Your task to perform on an android device: star an email in the gmail app Image 0: 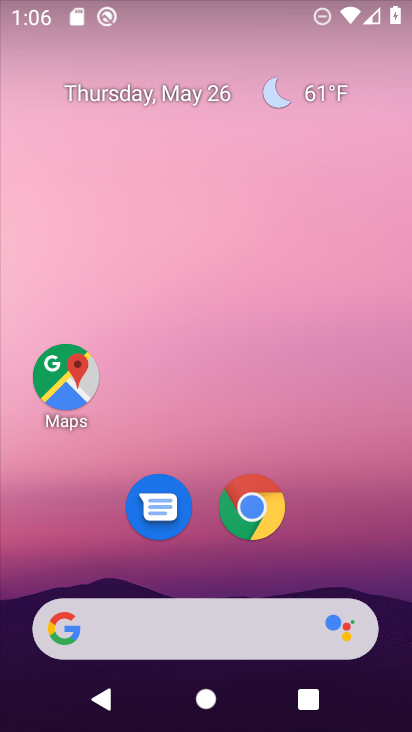
Step 0: drag from (344, 569) to (343, 46)
Your task to perform on an android device: star an email in the gmail app Image 1: 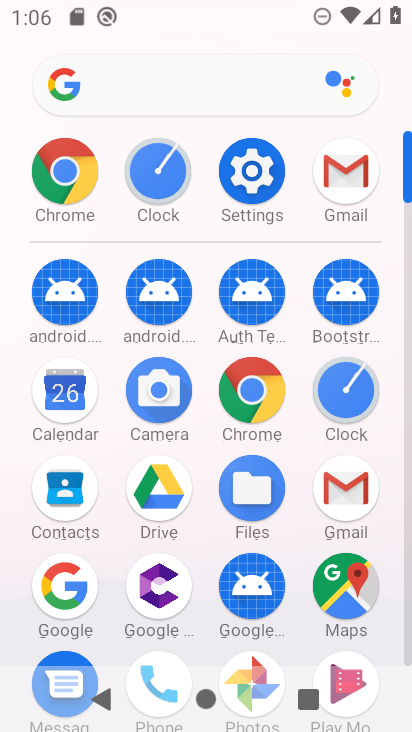
Step 1: click (236, 198)
Your task to perform on an android device: star an email in the gmail app Image 2: 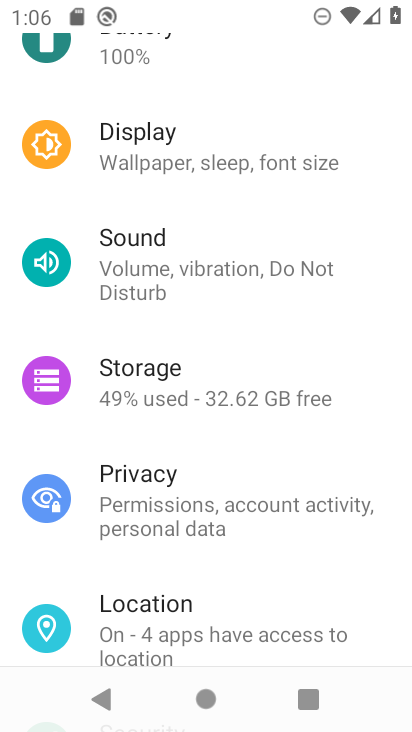
Step 2: press home button
Your task to perform on an android device: star an email in the gmail app Image 3: 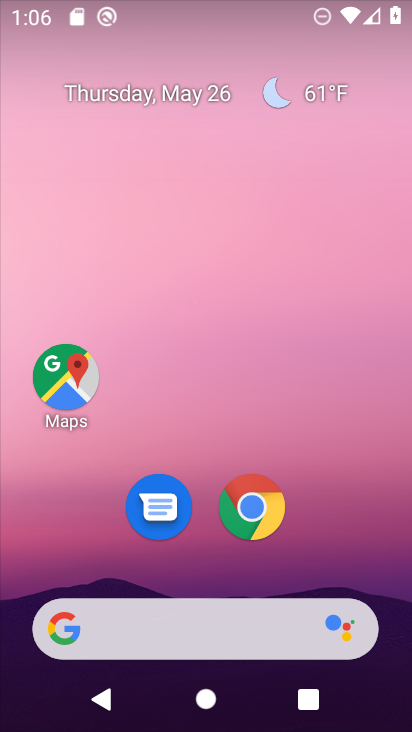
Step 3: drag from (343, 500) to (318, 207)
Your task to perform on an android device: star an email in the gmail app Image 4: 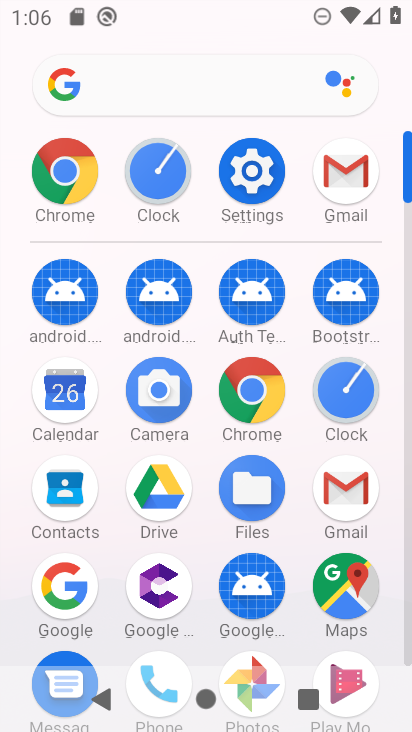
Step 4: click (340, 211)
Your task to perform on an android device: star an email in the gmail app Image 5: 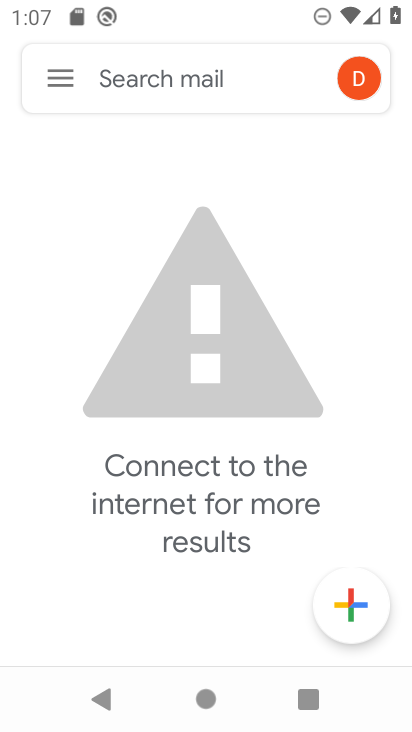
Step 5: click (63, 98)
Your task to perform on an android device: star an email in the gmail app Image 6: 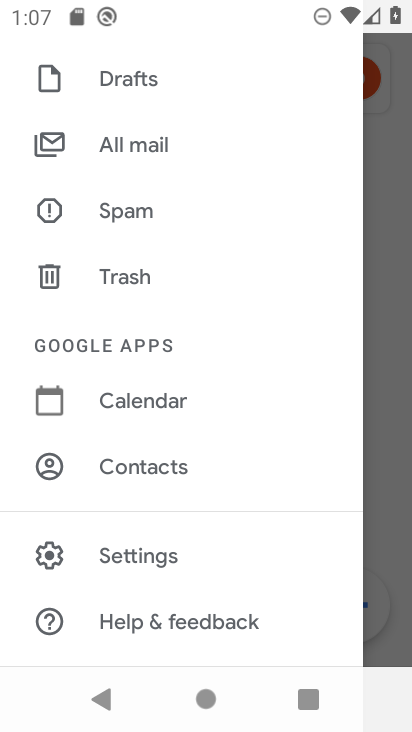
Step 6: drag from (139, 265) to (114, 357)
Your task to perform on an android device: star an email in the gmail app Image 7: 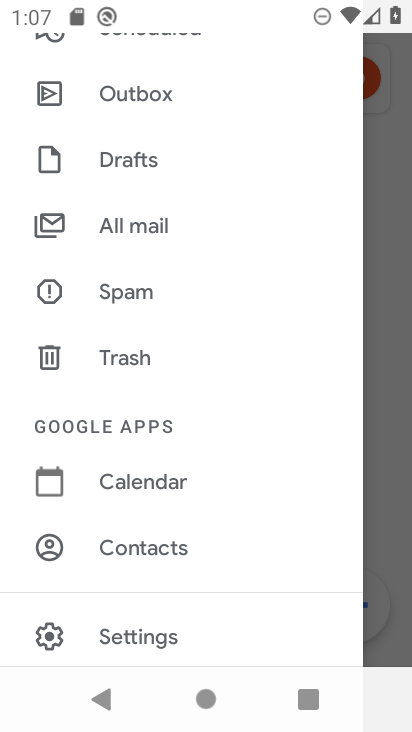
Step 7: drag from (160, 88) to (59, 292)
Your task to perform on an android device: star an email in the gmail app Image 8: 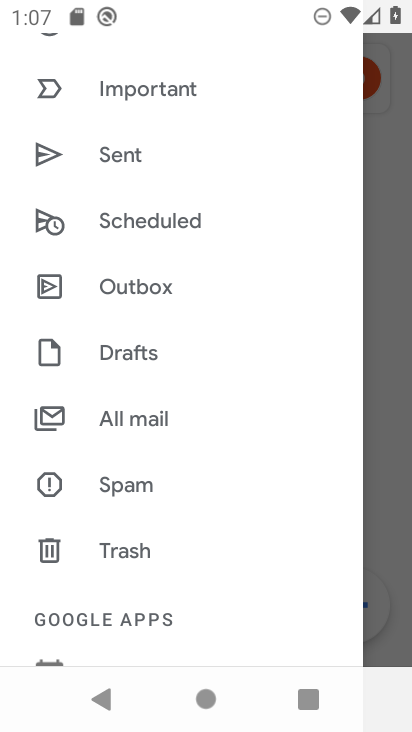
Step 8: drag from (145, 198) to (126, 459)
Your task to perform on an android device: star an email in the gmail app Image 9: 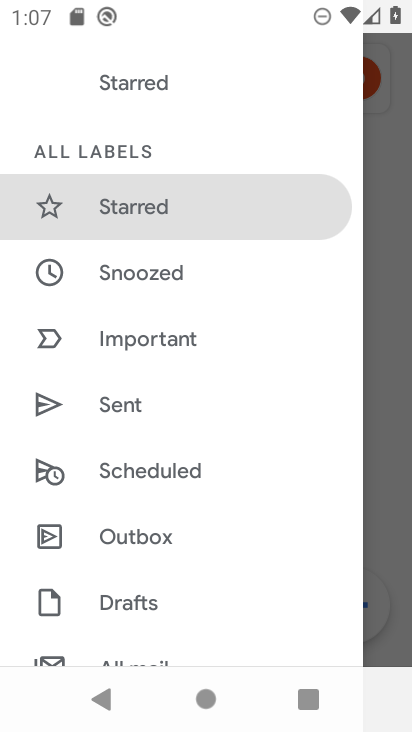
Step 9: click (127, 228)
Your task to perform on an android device: star an email in the gmail app Image 10: 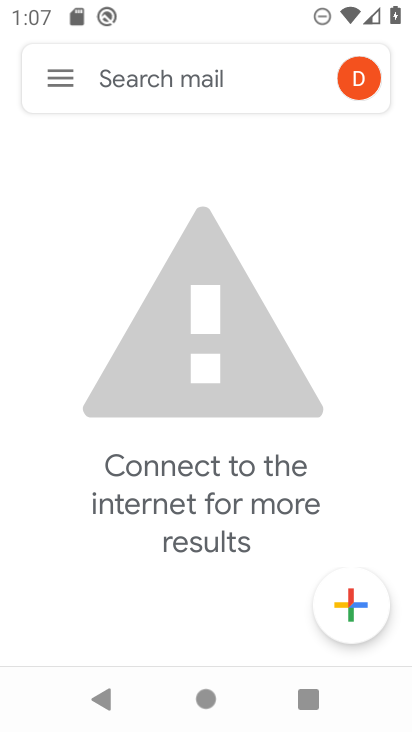
Step 10: task complete